Your task to perform on an android device: Go to eBay Image 0: 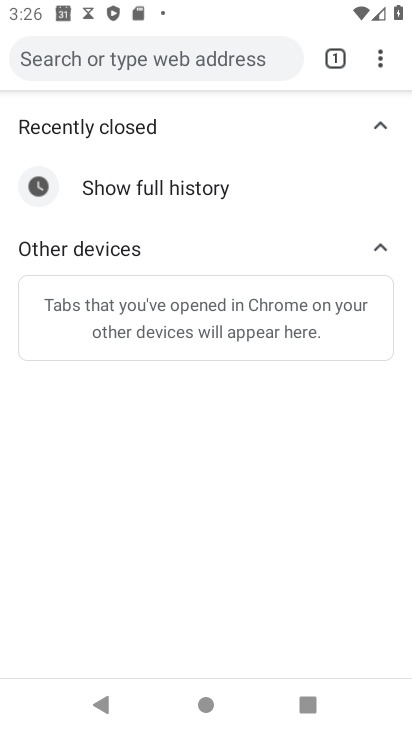
Step 0: press home button
Your task to perform on an android device: Go to eBay Image 1: 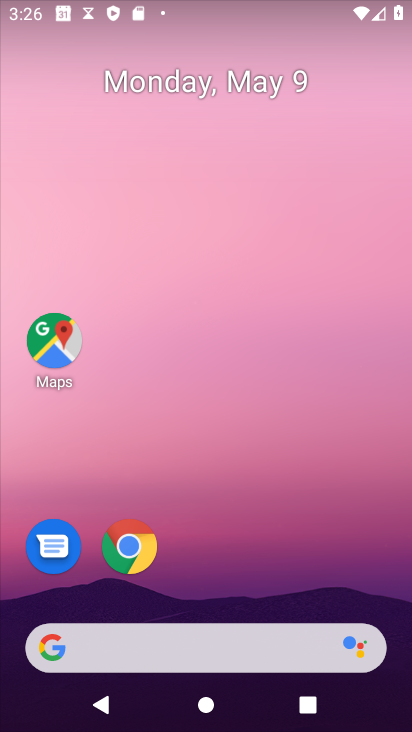
Step 1: click (145, 541)
Your task to perform on an android device: Go to eBay Image 2: 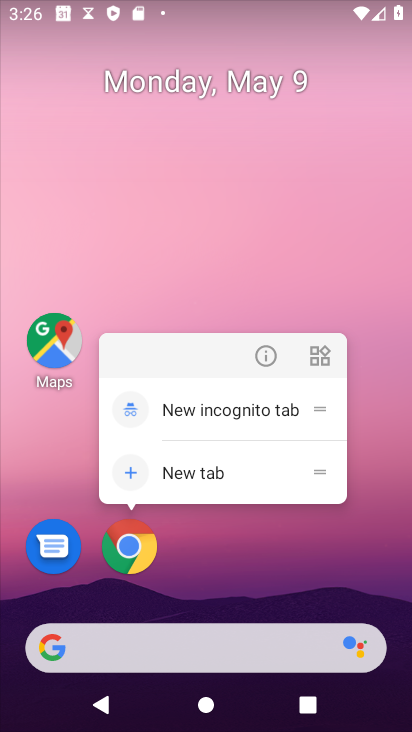
Step 2: click (148, 560)
Your task to perform on an android device: Go to eBay Image 3: 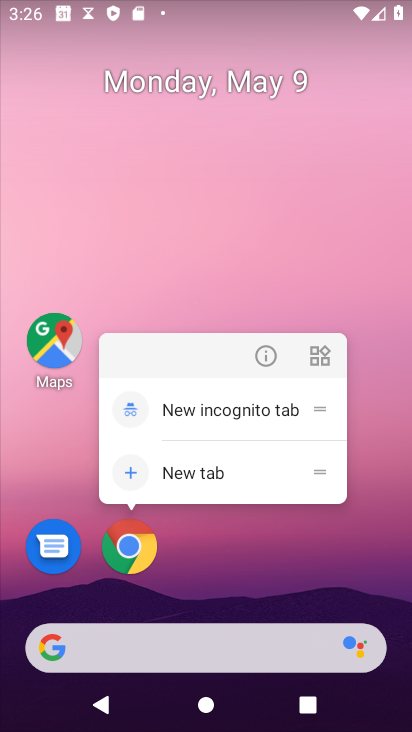
Step 3: drag from (256, 585) to (199, 82)
Your task to perform on an android device: Go to eBay Image 4: 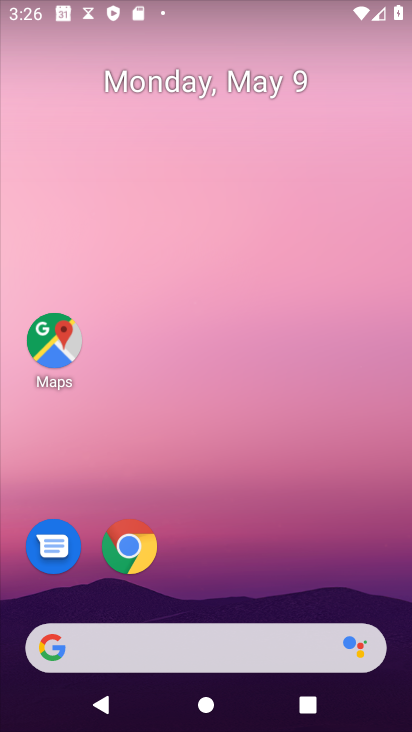
Step 4: drag from (240, 526) to (168, 70)
Your task to perform on an android device: Go to eBay Image 5: 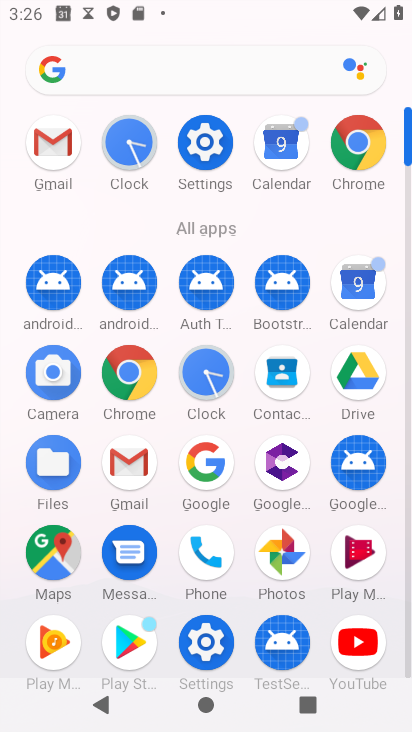
Step 5: click (379, 153)
Your task to perform on an android device: Go to eBay Image 6: 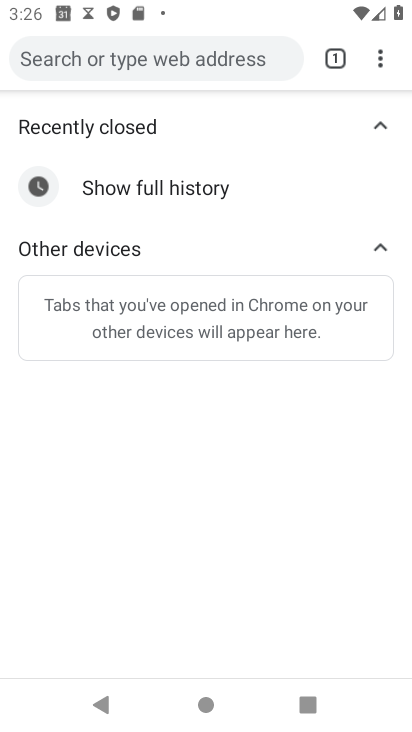
Step 6: click (237, 68)
Your task to perform on an android device: Go to eBay Image 7: 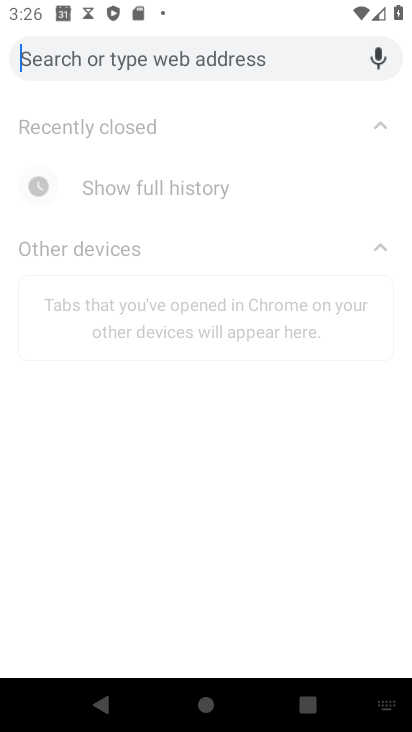
Step 7: type "ebay"
Your task to perform on an android device: Go to eBay Image 8: 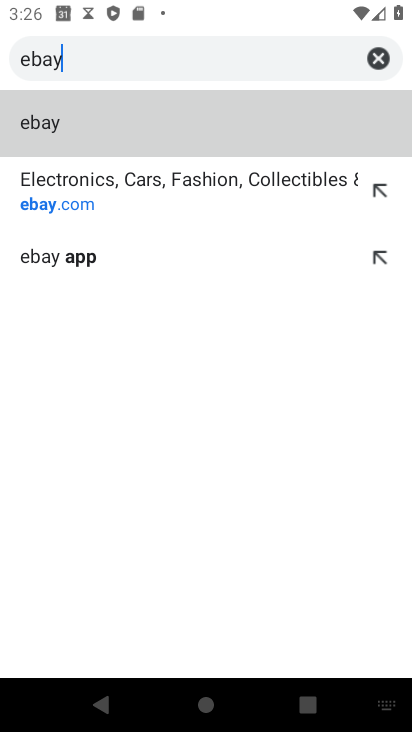
Step 8: click (125, 202)
Your task to perform on an android device: Go to eBay Image 9: 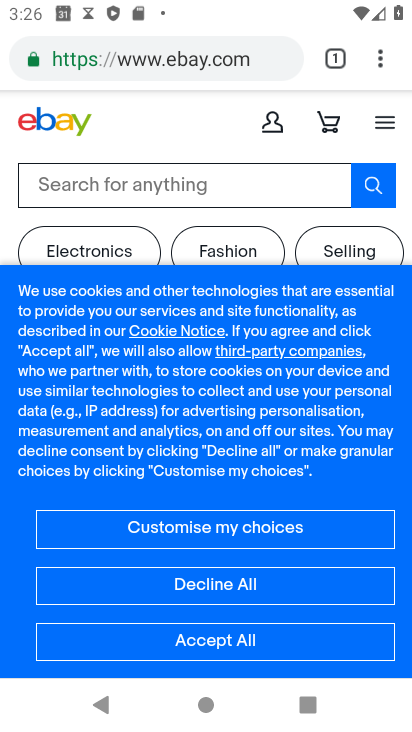
Step 9: task complete